Your task to perform on an android device: install app "DuckDuckGo Privacy Browser" Image 0: 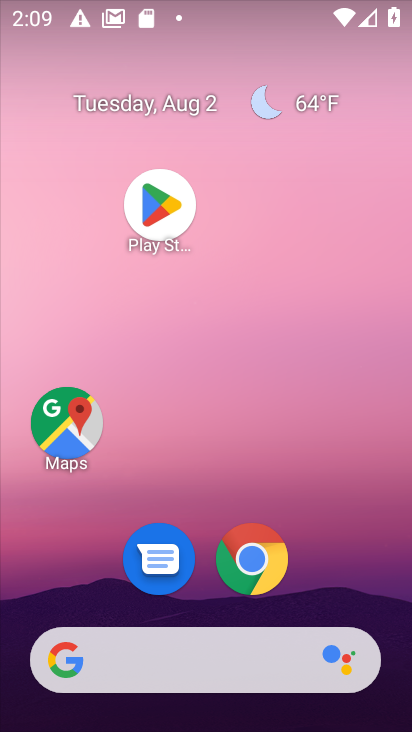
Step 0: click (180, 207)
Your task to perform on an android device: install app "DuckDuckGo Privacy Browser" Image 1: 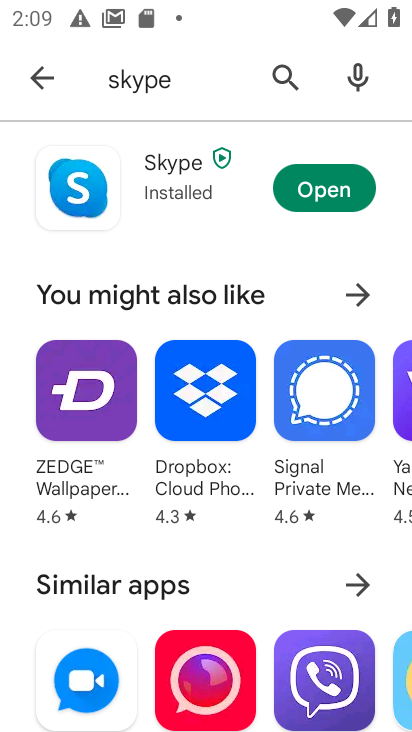
Step 1: click (302, 77)
Your task to perform on an android device: install app "DuckDuckGo Privacy Browser" Image 2: 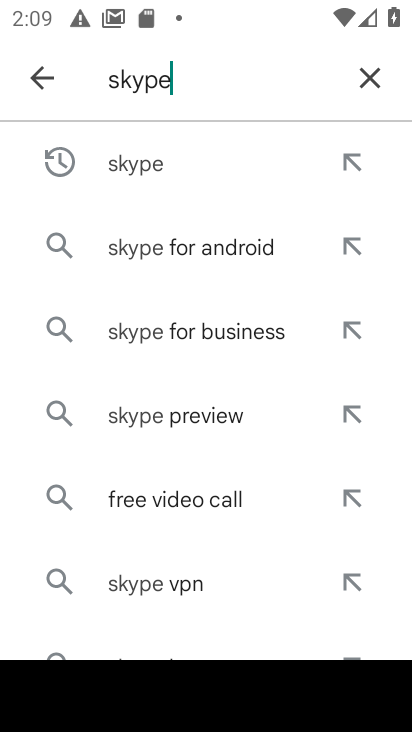
Step 2: click (373, 83)
Your task to perform on an android device: install app "DuckDuckGo Privacy Browser" Image 3: 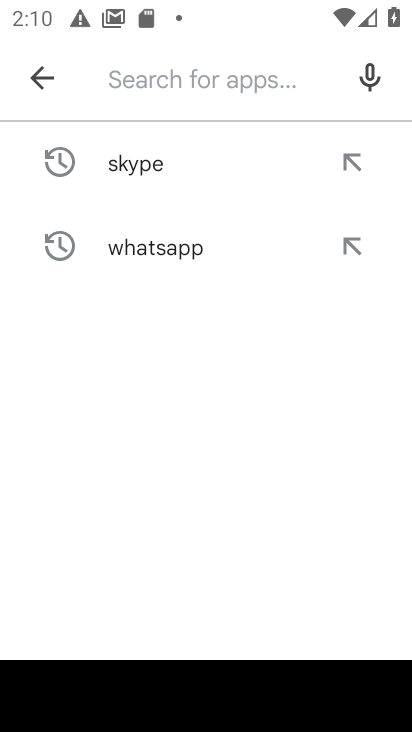
Step 3: type "duckduckgo"
Your task to perform on an android device: install app "DuckDuckGo Privacy Browser" Image 4: 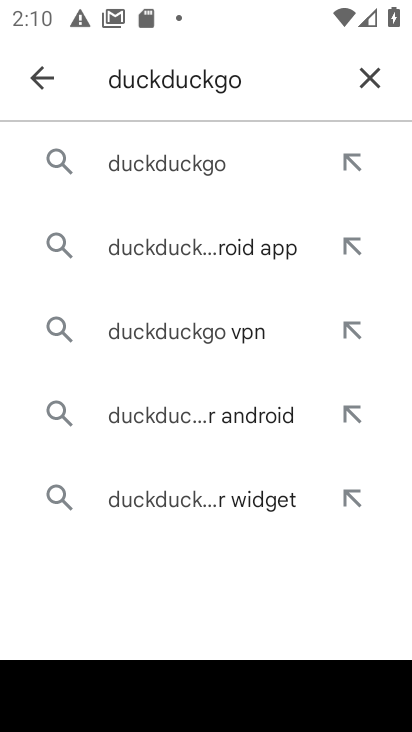
Step 4: click (202, 168)
Your task to perform on an android device: install app "DuckDuckGo Privacy Browser" Image 5: 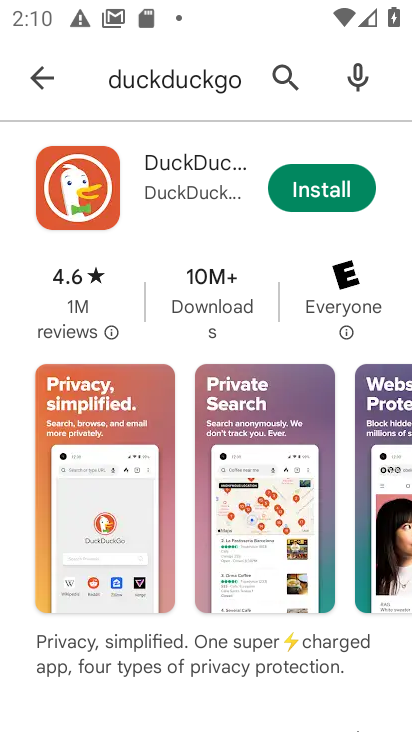
Step 5: click (307, 192)
Your task to perform on an android device: install app "DuckDuckGo Privacy Browser" Image 6: 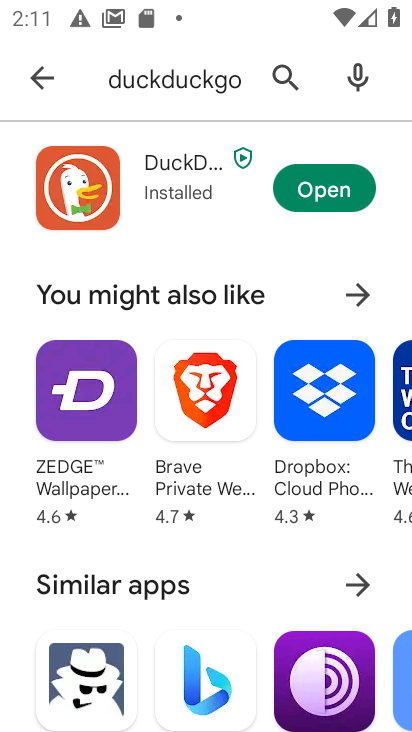
Step 6: task complete